Your task to perform on an android device: Go to calendar. Show me events next week Image 0: 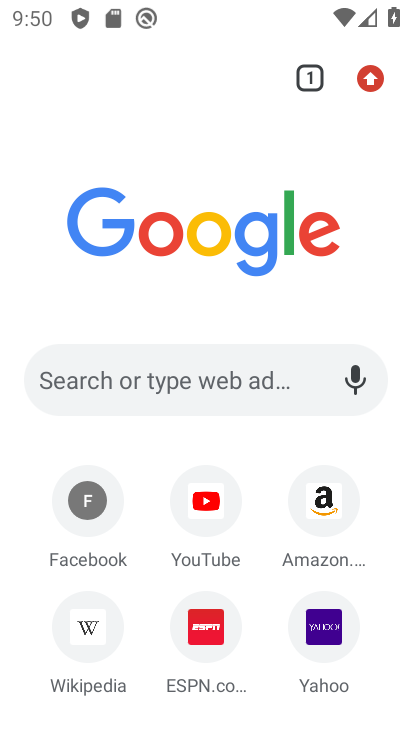
Step 0: press home button
Your task to perform on an android device: Go to calendar. Show me events next week Image 1: 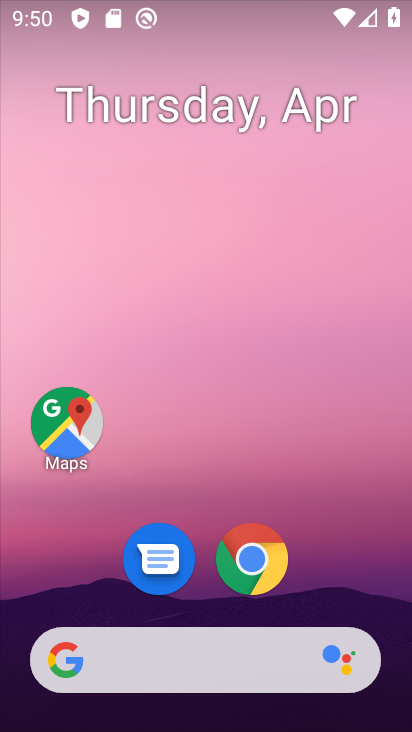
Step 1: drag from (139, 649) to (336, 85)
Your task to perform on an android device: Go to calendar. Show me events next week Image 2: 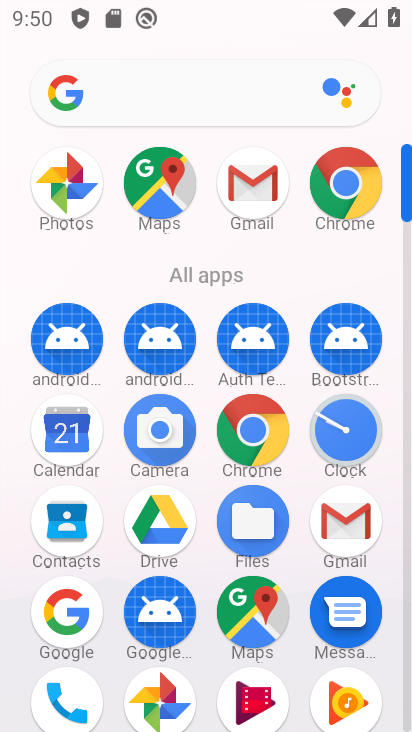
Step 2: click (68, 434)
Your task to perform on an android device: Go to calendar. Show me events next week Image 3: 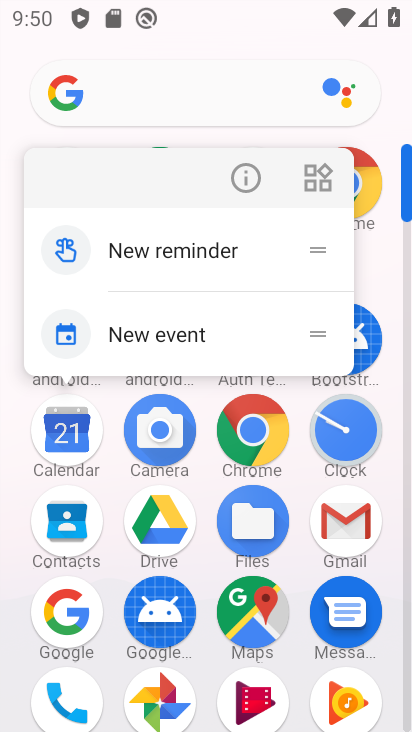
Step 3: click (67, 451)
Your task to perform on an android device: Go to calendar. Show me events next week Image 4: 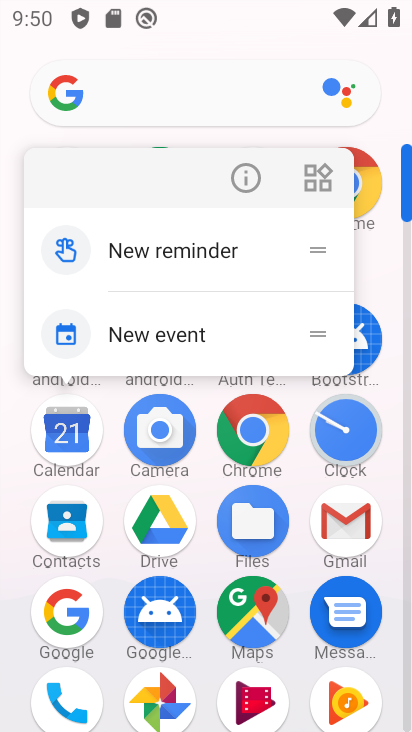
Step 4: click (69, 438)
Your task to perform on an android device: Go to calendar. Show me events next week Image 5: 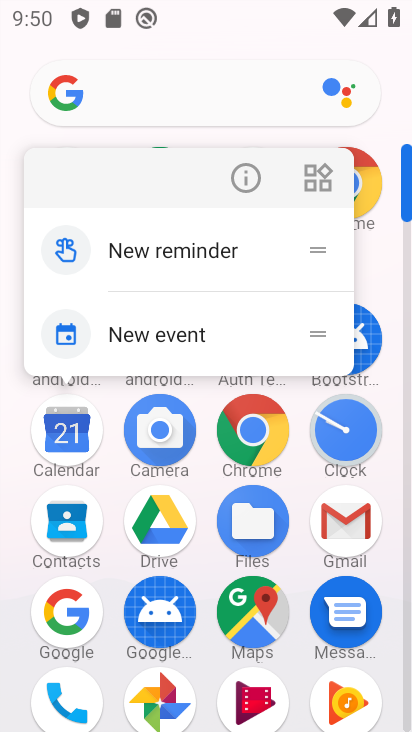
Step 5: click (67, 441)
Your task to perform on an android device: Go to calendar. Show me events next week Image 6: 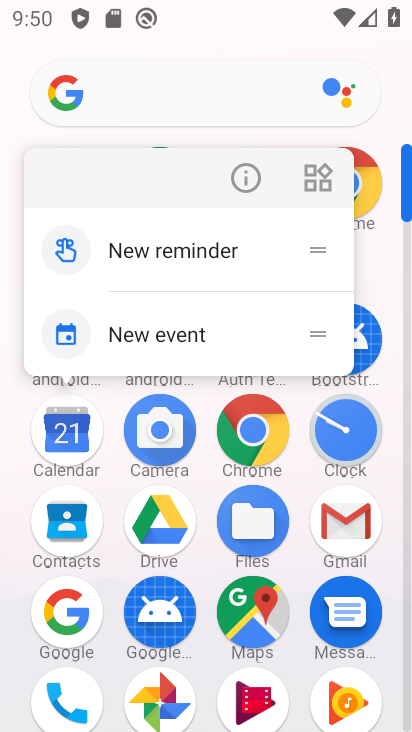
Step 6: click (71, 433)
Your task to perform on an android device: Go to calendar. Show me events next week Image 7: 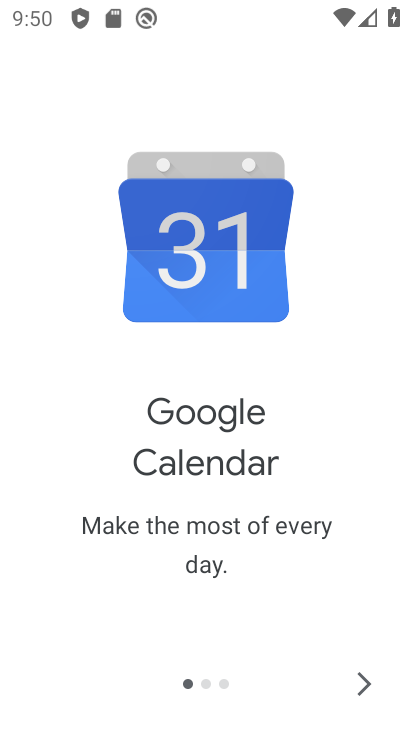
Step 7: click (362, 674)
Your task to perform on an android device: Go to calendar. Show me events next week Image 8: 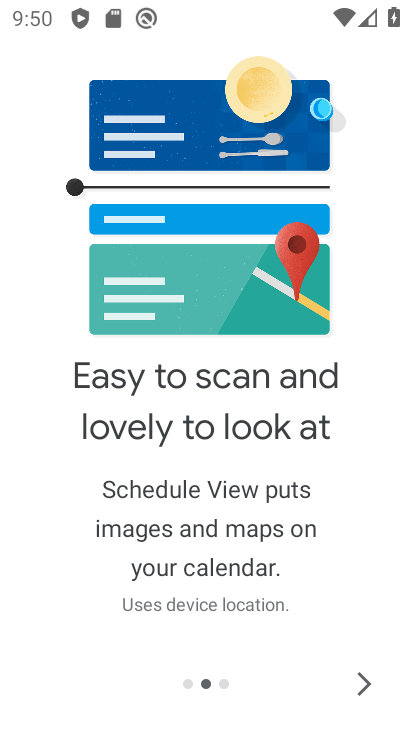
Step 8: click (362, 675)
Your task to perform on an android device: Go to calendar. Show me events next week Image 9: 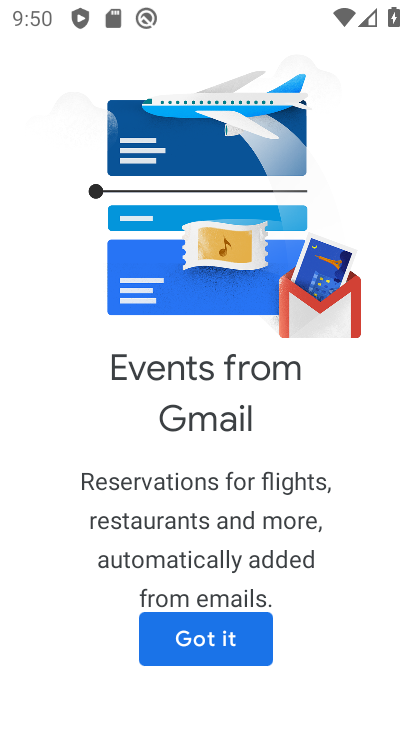
Step 9: click (225, 642)
Your task to perform on an android device: Go to calendar. Show me events next week Image 10: 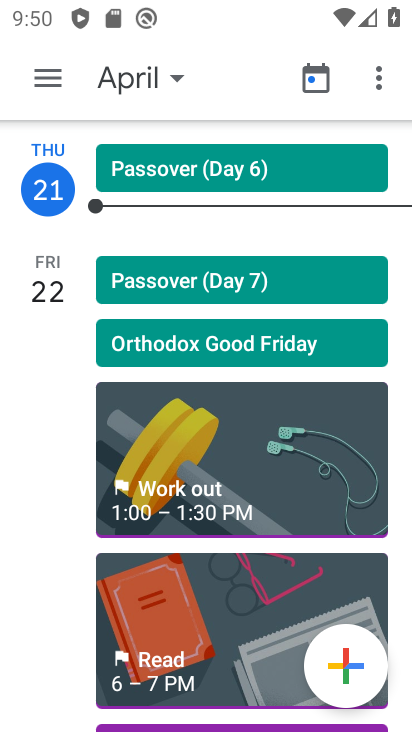
Step 10: click (128, 70)
Your task to perform on an android device: Go to calendar. Show me events next week Image 11: 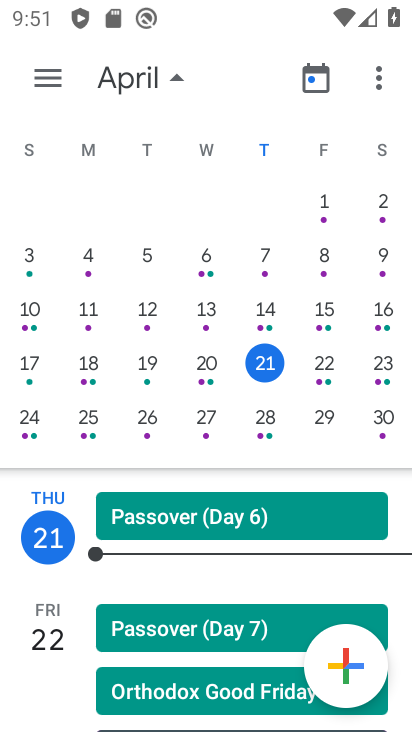
Step 11: click (35, 417)
Your task to perform on an android device: Go to calendar. Show me events next week Image 12: 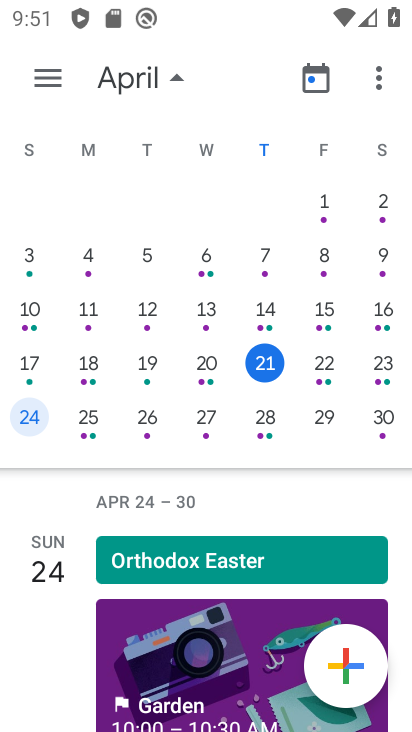
Step 12: click (49, 80)
Your task to perform on an android device: Go to calendar. Show me events next week Image 13: 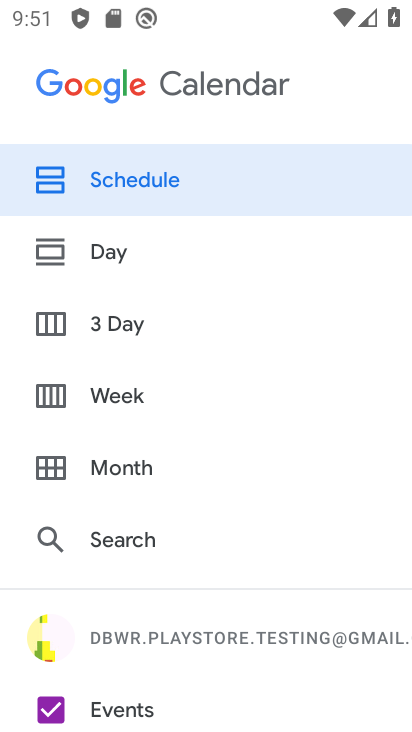
Step 13: click (138, 394)
Your task to perform on an android device: Go to calendar. Show me events next week Image 14: 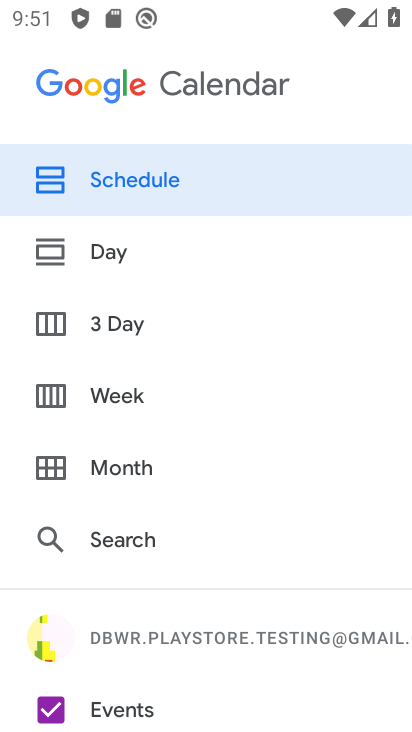
Step 14: click (131, 390)
Your task to perform on an android device: Go to calendar. Show me events next week Image 15: 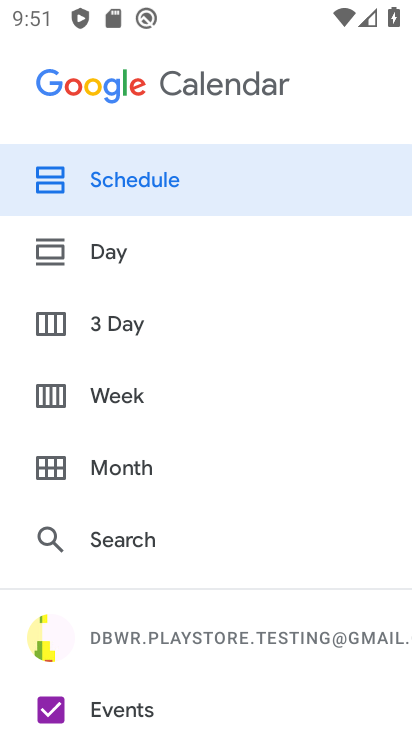
Step 15: click (111, 392)
Your task to perform on an android device: Go to calendar. Show me events next week Image 16: 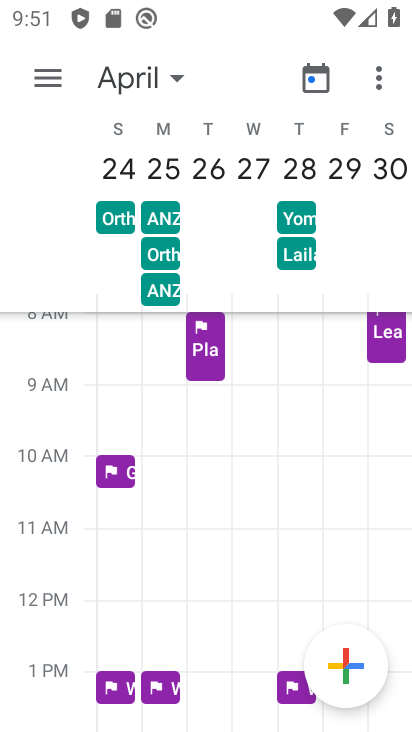
Step 16: click (45, 73)
Your task to perform on an android device: Go to calendar. Show me events next week Image 17: 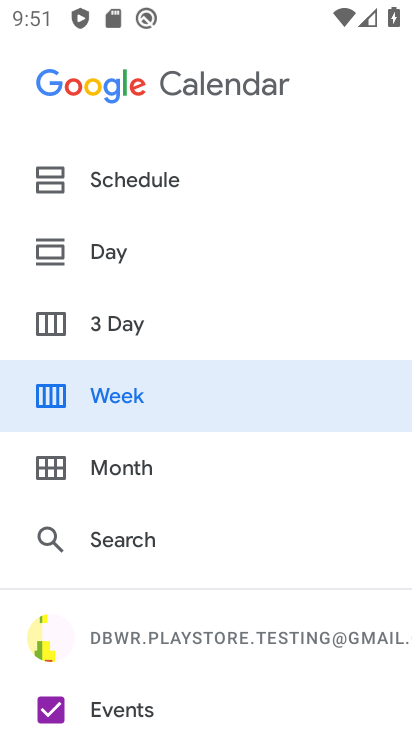
Step 17: click (141, 174)
Your task to perform on an android device: Go to calendar. Show me events next week Image 18: 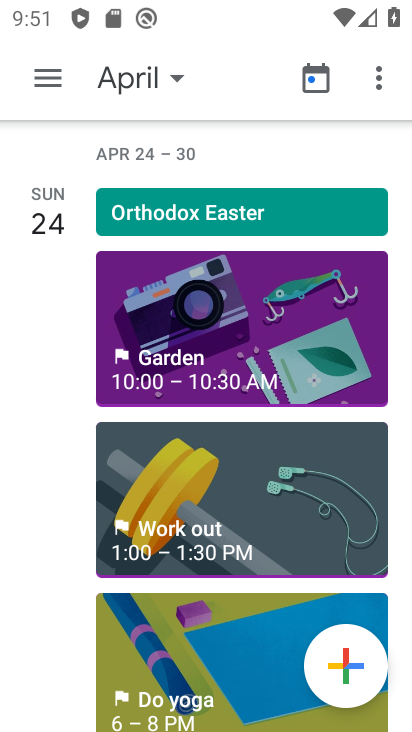
Step 18: click (229, 341)
Your task to perform on an android device: Go to calendar. Show me events next week Image 19: 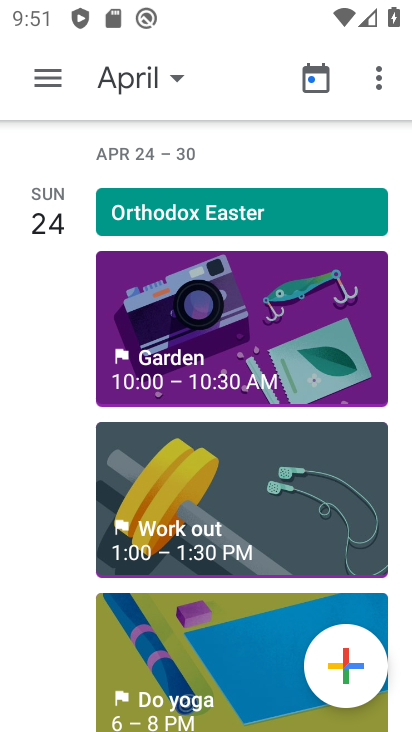
Step 19: click (169, 354)
Your task to perform on an android device: Go to calendar. Show me events next week Image 20: 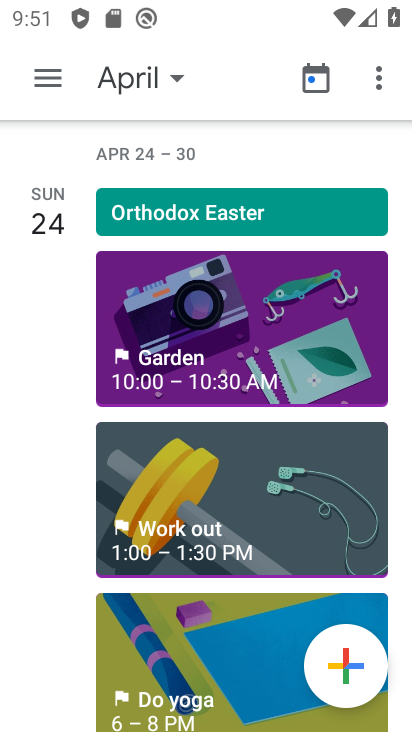
Step 20: drag from (143, 633) to (384, 150)
Your task to perform on an android device: Go to calendar. Show me events next week Image 21: 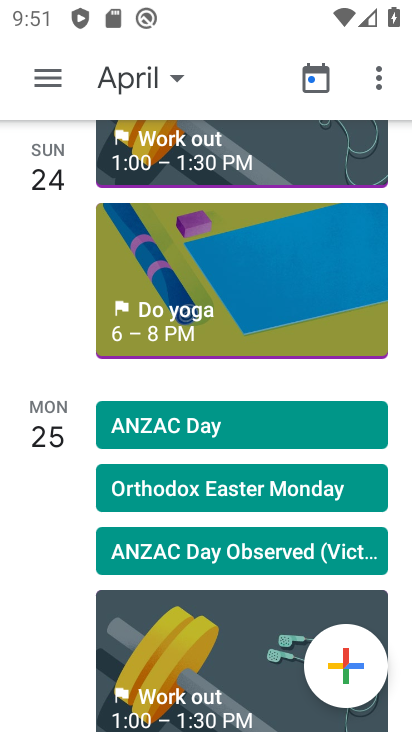
Step 21: drag from (254, 209) to (173, 691)
Your task to perform on an android device: Go to calendar. Show me events next week Image 22: 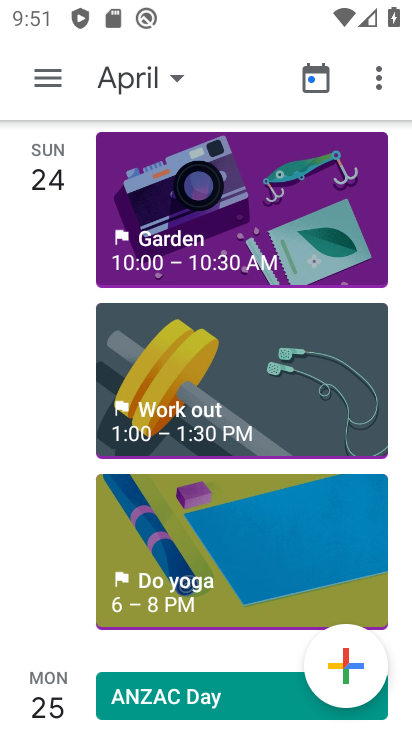
Step 22: click (181, 242)
Your task to perform on an android device: Go to calendar. Show me events next week Image 23: 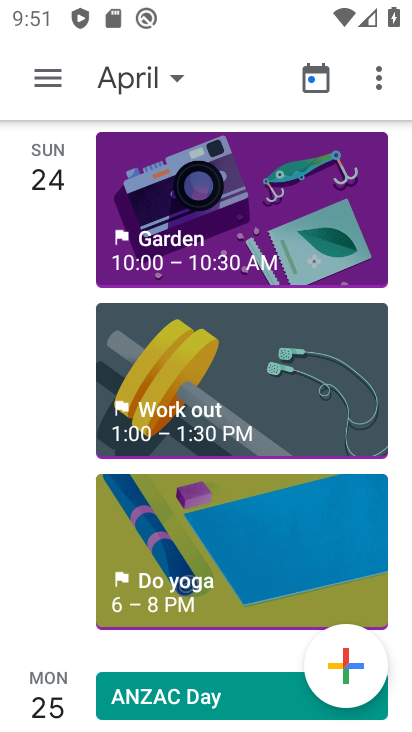
Step 23: click (263, 182)
Your task to perform on an android device: Go to calendar. Show me events next week Image 24: 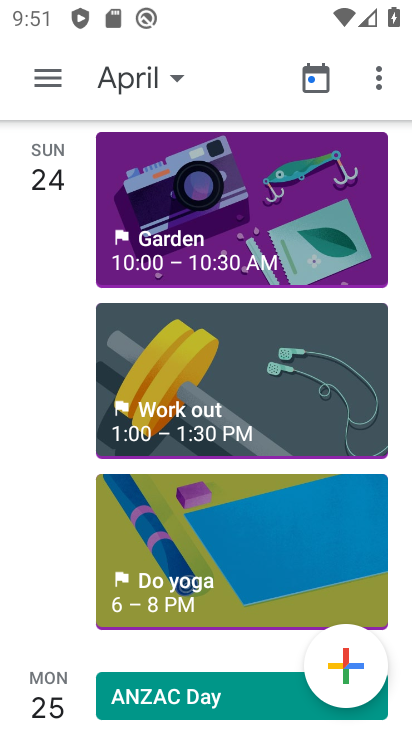
Step 24: click (257, 224)
Your task to perform on an android device: Go to calendar. Show me events next week Image 25: 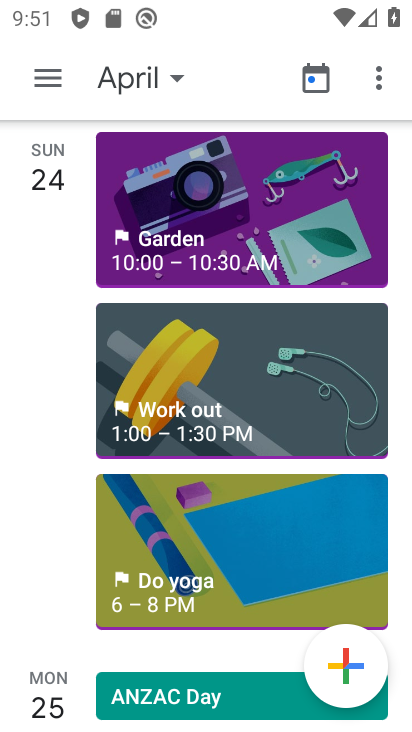
Step 25: drag from (159, 666) to (327, 133)
Your task to perform on an android device: Go to calendar. Show me events next week Image 26: 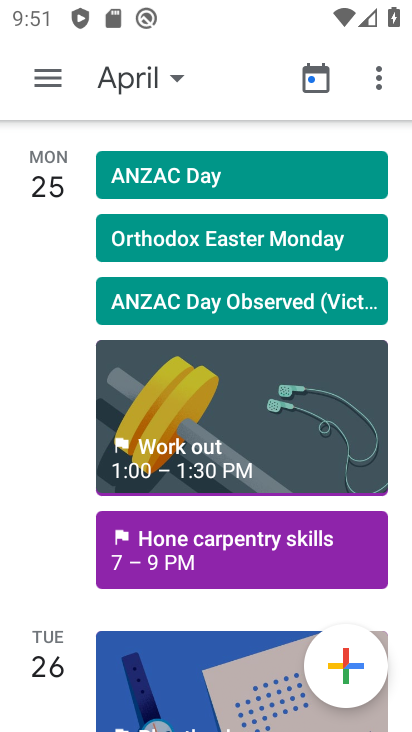
Step 26: click (221, 546)
Your task to perform on an android device: Go to calendar. Show me events next week Image 27: 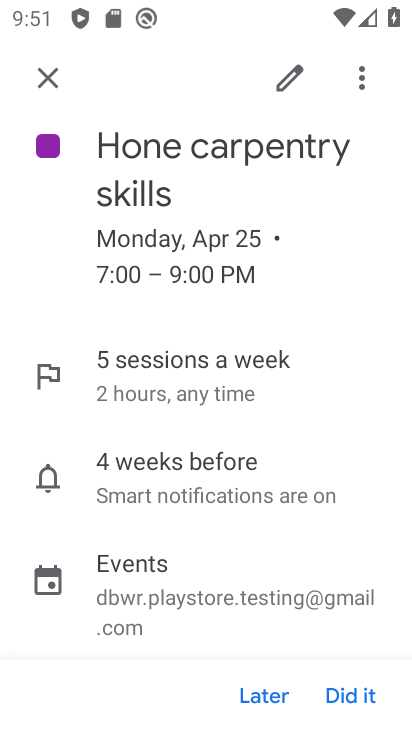
Step 27: task complete